Your task to perform on an android device: toggle airplane mode Image 0: 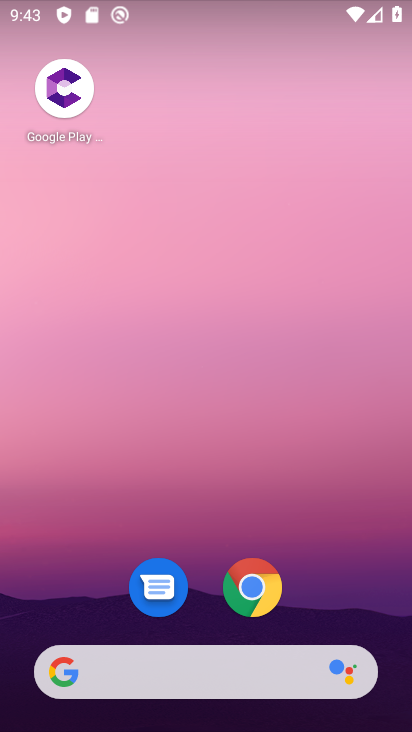
Step 0: drag from (208, 490) to (262, 20)
Your task to perform on an android device: toggle airplane mode Image 1: 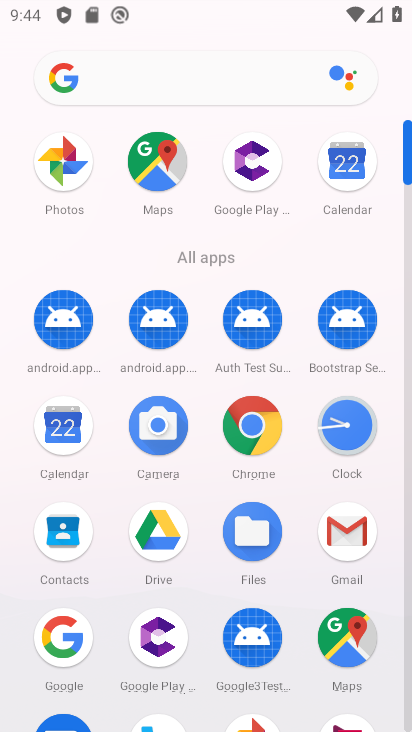
Step 1: drag from (217, 448) to (243, 138)
Your task to perform on an android device: toggle airplane mode Image 2: 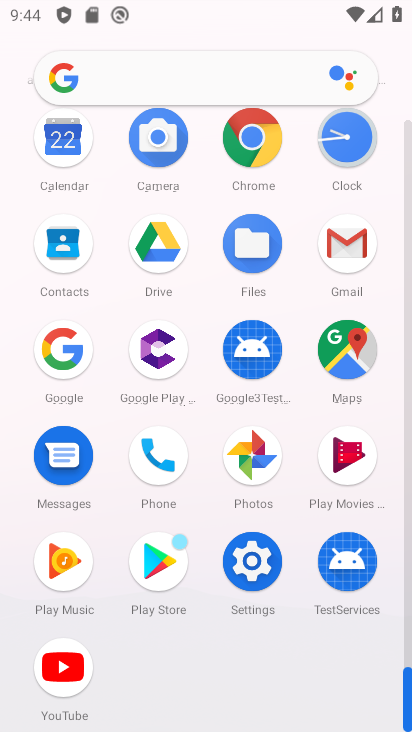
Step 2: click (249, 550)
Your task to perform on an android device: toggle airplane mode Image 3: 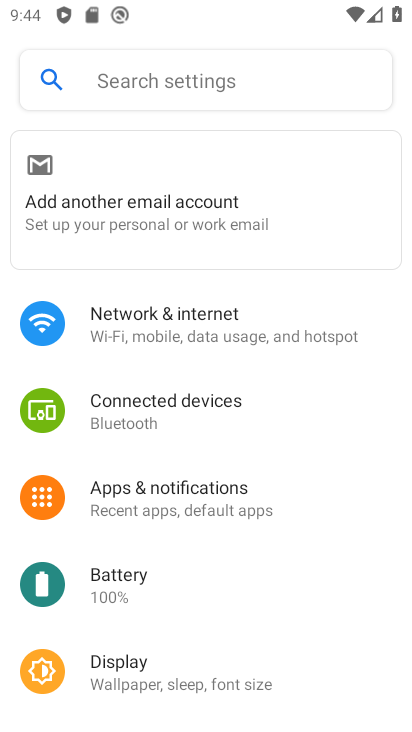
Step 3: click (258, 330)
Your task to perform on an android device: toggle airplane mode Image 4: 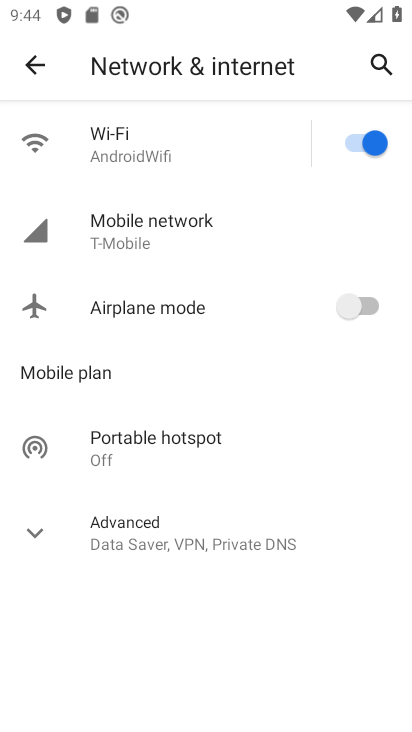
Step 4: click (353, 301)
Your task to perform on an android device: toggle airplane mode Image 5: 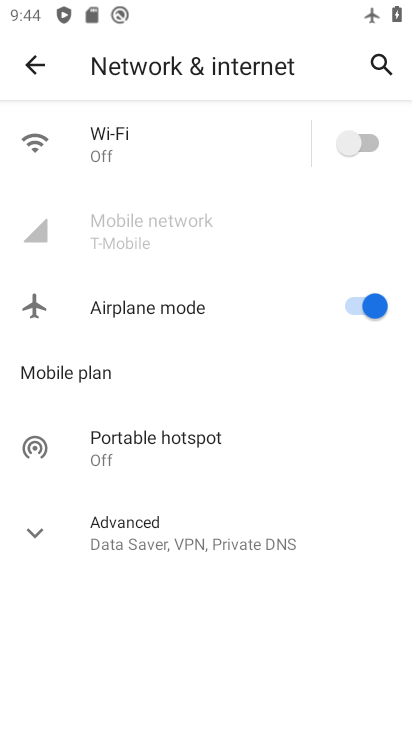
Step 5: task complete